Your task to perform on an android device: Go to Amazon Image 0: 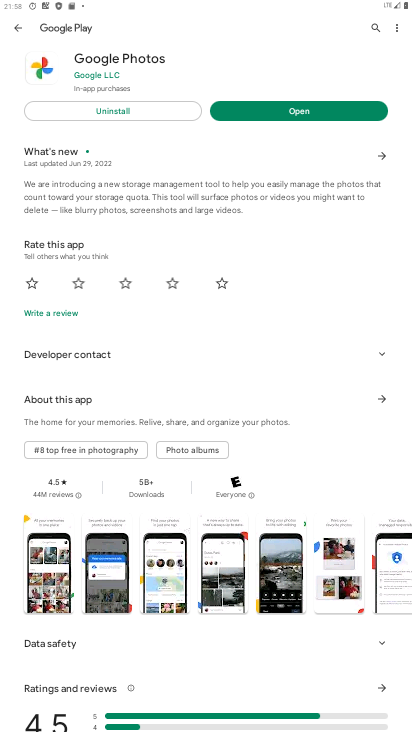
Step 0: drag from (213, 640) to (294, 312)
Your task to perform on an android device: Go to Amazon Image 1: 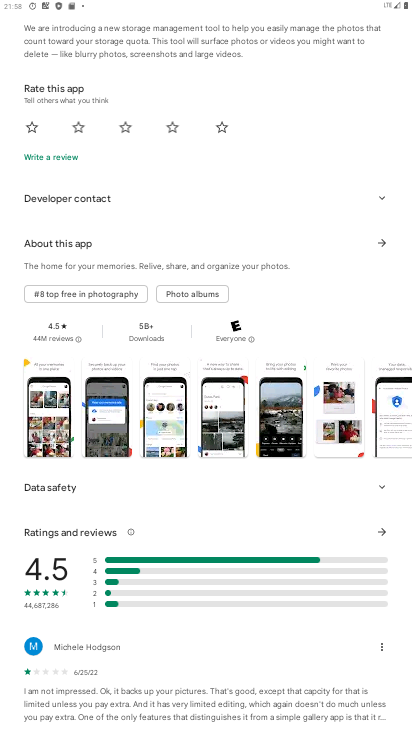
Step 1: press home button
Your task to perform on an android device: Go to Amazon Image 2: 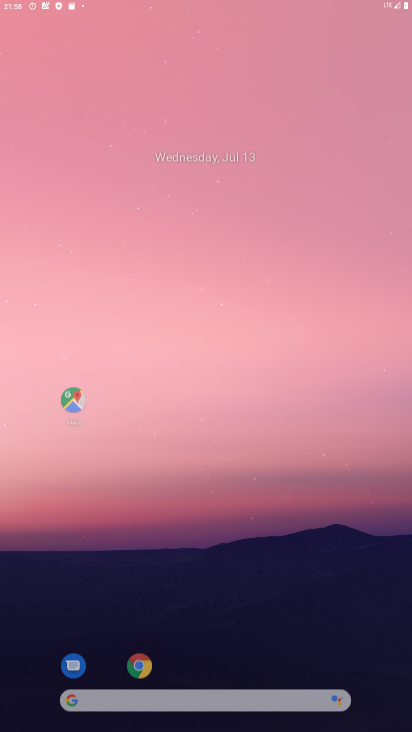
Step 2: drag from (183, 463) to (183, 365)
Your task to perform on an android device: Go to Amazon Image 3: 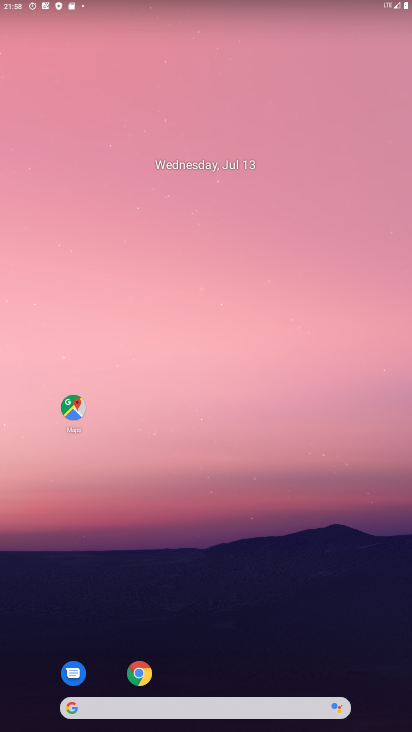
Step 3: drag from (193, 634) to (106, 9)
Your task to perform on an android device: Go to Amazon Image 4: 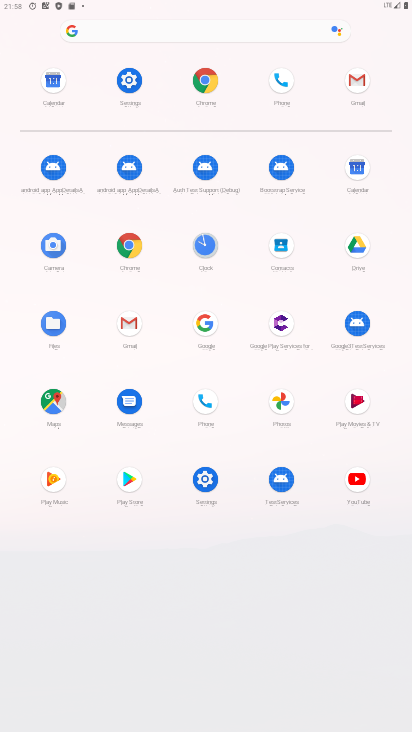
Step 4: drag from (296, 402) to (311, 276)
Your task to perform on an android device: Go to Amazon Image 5: 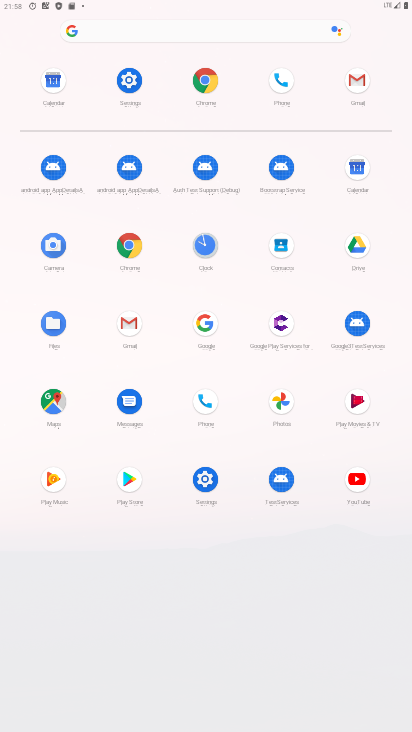
Step 5: click (130, 242)
Your task to perform on an android device: Go to Amazon Image 6: 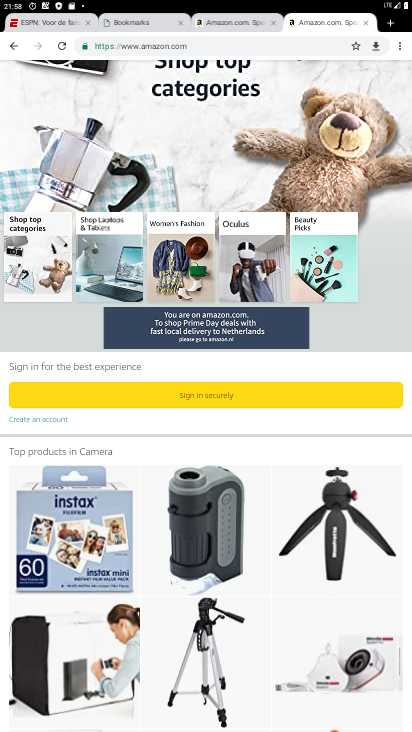
Step 6: drag from (195, 190) to (209, 731)
Your task to perform on an android device: Go to Amazon Image 7: 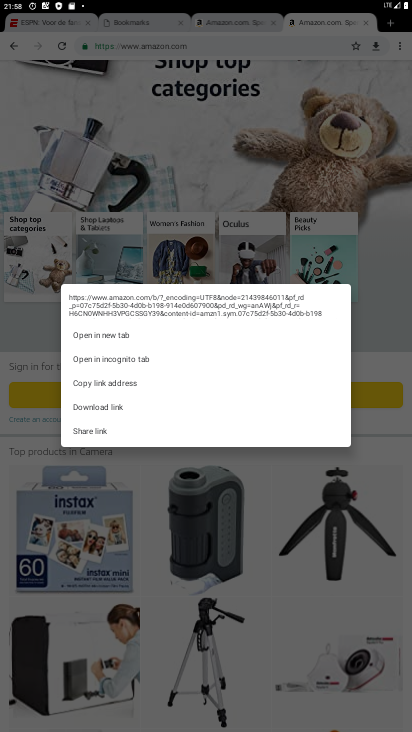
Step 7: click (206, 133)
Your task to perform on an android device: Go to Amazon Image 8: 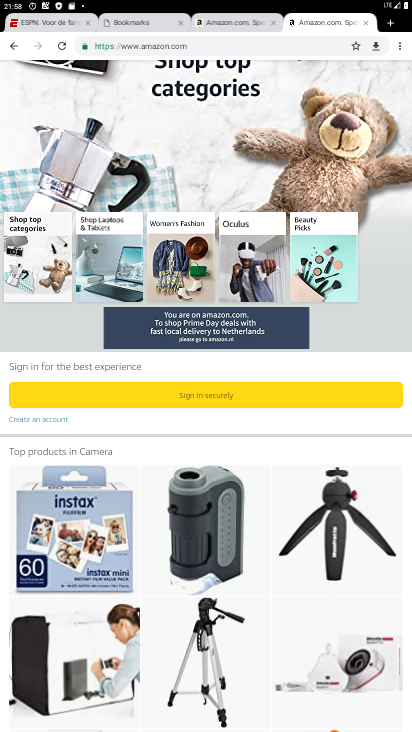
Step 8: task complete